Your task to perform on an android device: search for starred emails in the gmail app Image 0: 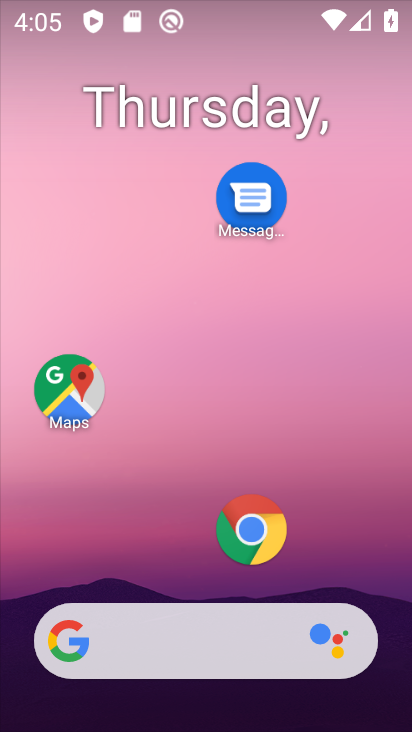
Step 0: drag from (105, 442) to (187, 30)
Your task to perform on an android device: search for starred emails in the gmail app Image 1: 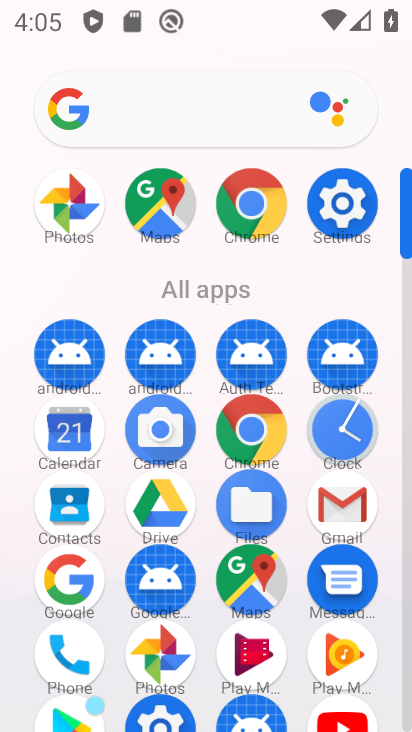
Step 1: click (347, 500)
Your task to perform on an android device: search for starred emails in the gmail app Image 2: 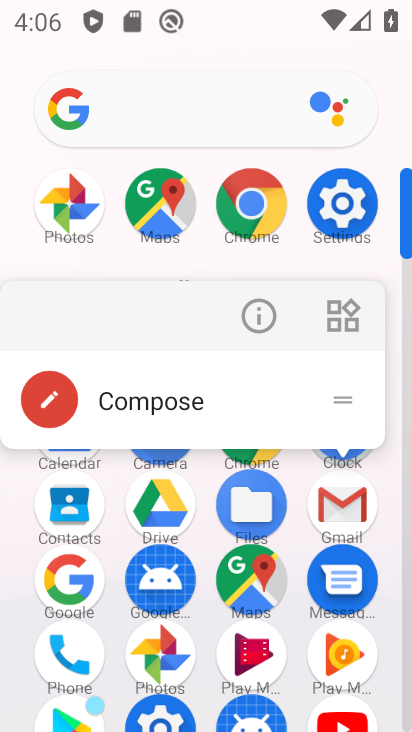
Step 2: click (349, 506)
Your task to perform on an android device: search for starred emails in the gmail app Image 3: 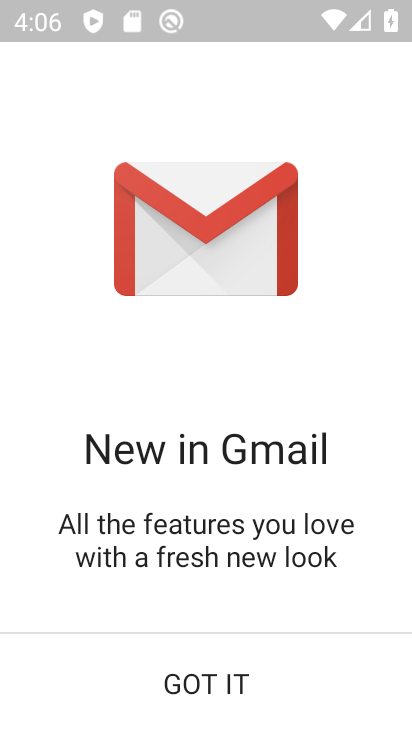
Step 3: click (207, 691)
Your task to perform on an android device: search for starred emails in the gmail app Image 4: 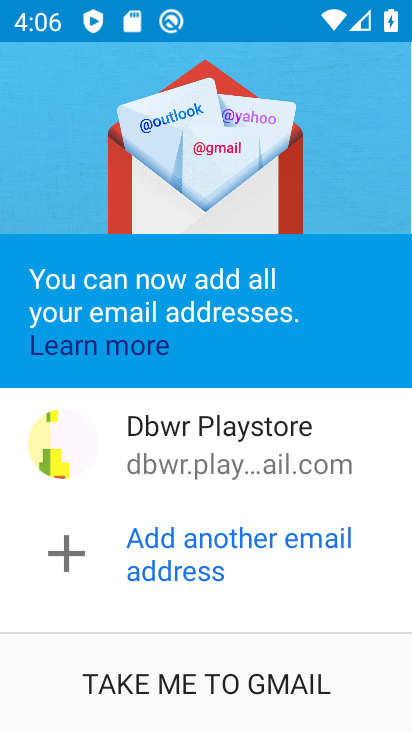
Step 4: click (185, 689)
Your task to perform on an android device: search for starred emails in the gmail app Image 5: 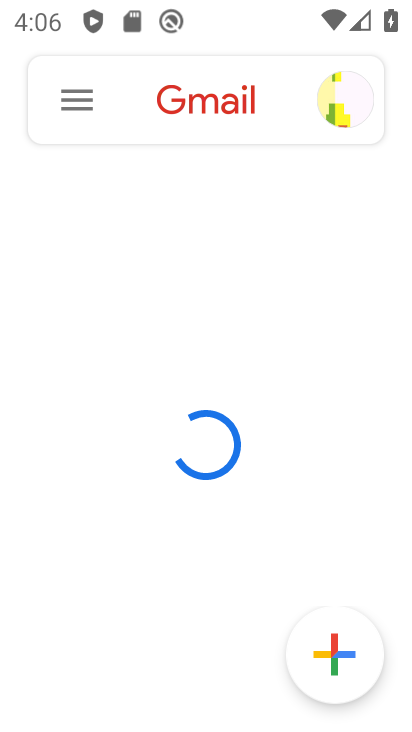
Step 5: click (69, 96)
Your task to perform on an android device: search for starred emails in the gmail app Image 6: 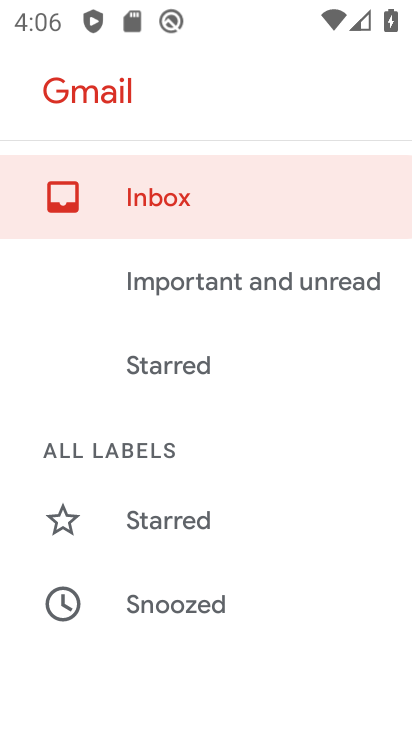
Step 6: click (172, 367)
Your task to perform on an android device: search for starred emails in the gmail app Image 7: 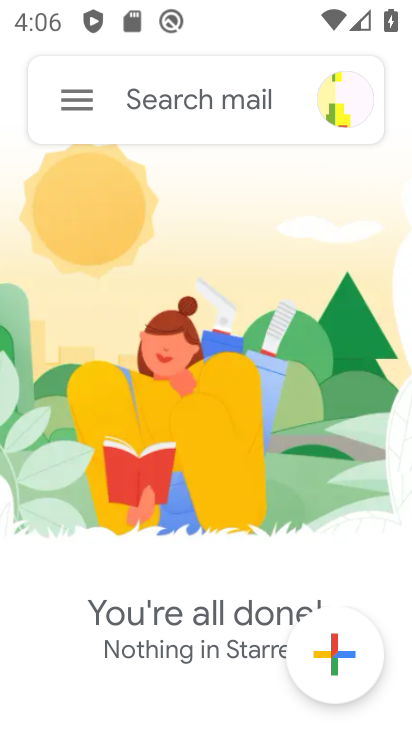
Step 7: task complete